Your task to perform on an android device: turn off sleep mode Image 0: 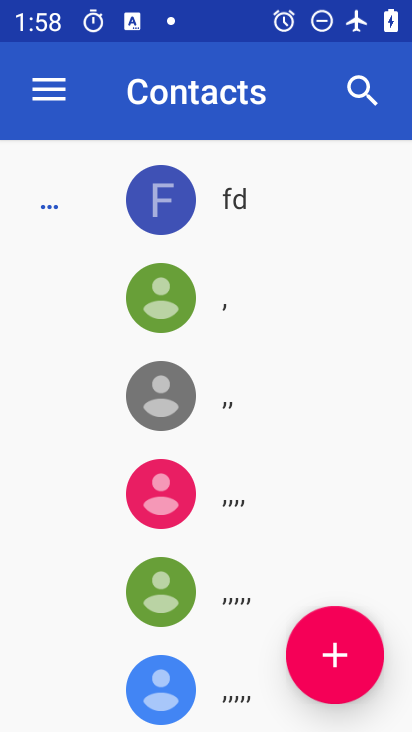
Step 0: press home button
Your task to perform on an android device: turn off sleep mode Image 1: 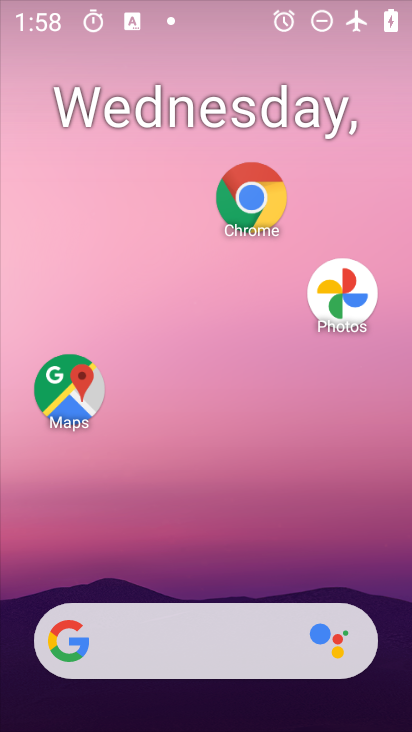
Step 1: drag from (212, 631) to (272, 135)
Your task to perform on an android device: turn off sleep mode Image 2: 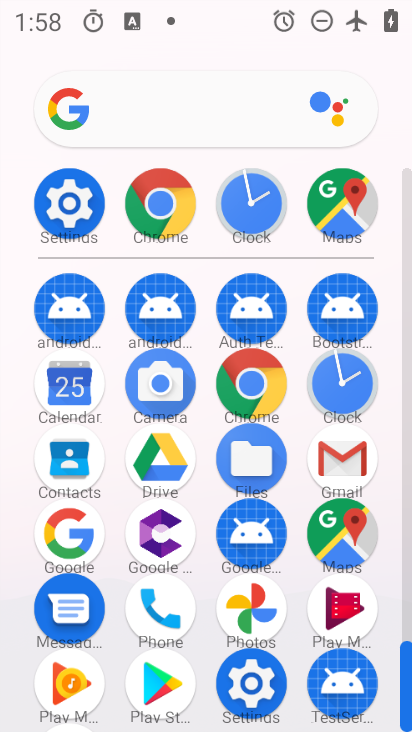
Step 2: click (73, 222)
Your task to perform on an android device: turn off sleep mode Image 3: 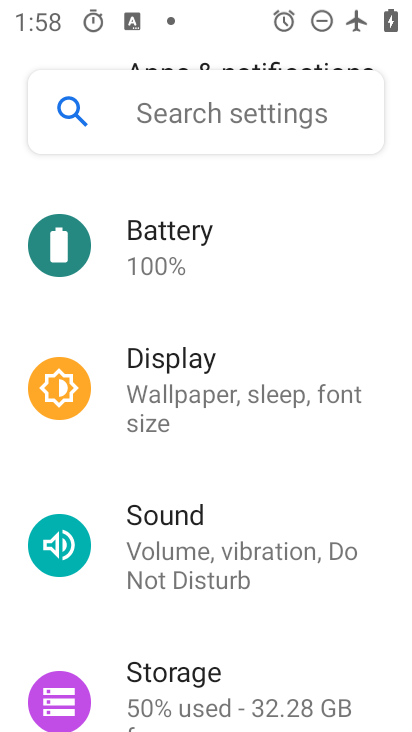
Step 3: drag from (210, 594) to (282, 280)
Your task to perform on an android device: turn off sleep mode Image 4: 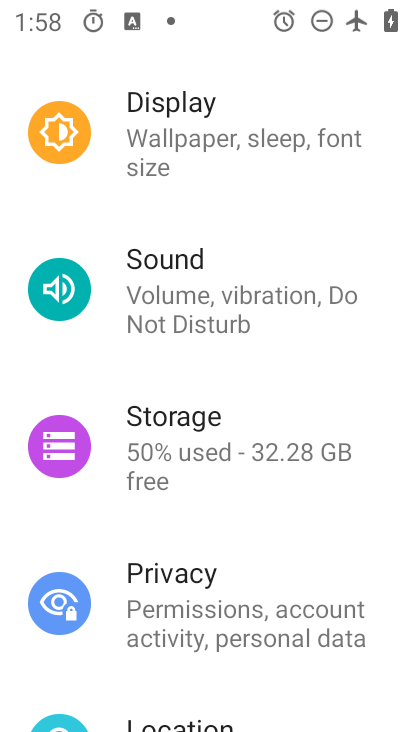
Step 4: drag from (226, 547) to (297, 187)
Your task to perform on an android device: turn off sleep mode Image 5: 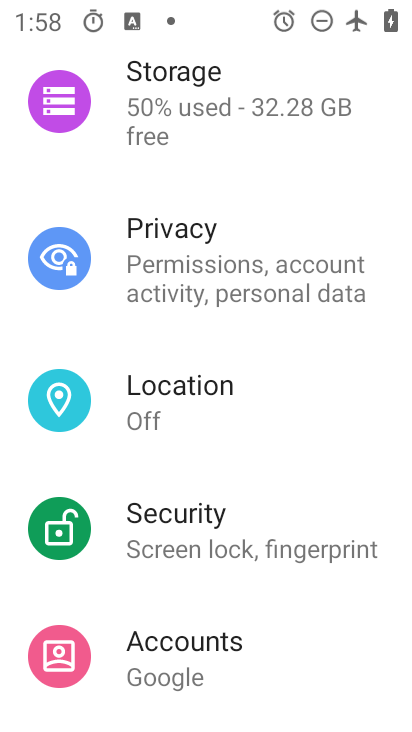
Step 5: drag from (191, 579) to (250, 233)
Your task to perform on an android device: turn off sleep mode Image 6: 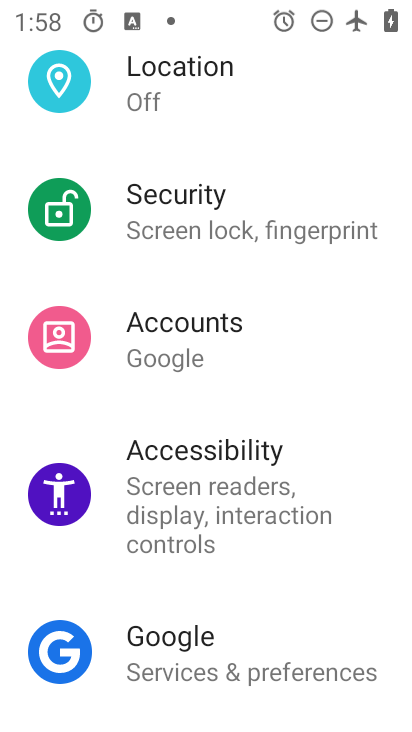
Step 6: drag from (204, 587) to (264, 279)
Your task to perform on an android device: turn off sleep mode Image 7: 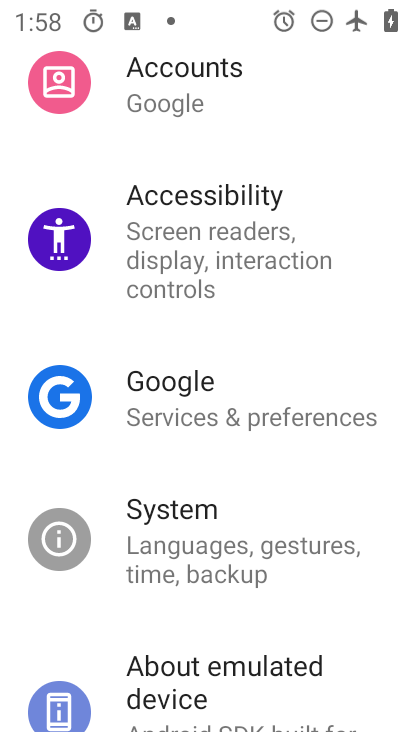
Step 7: drag from (150, 624) to (225, 354)
Your task to perform on an android device: turn off sleep mode Image 8: 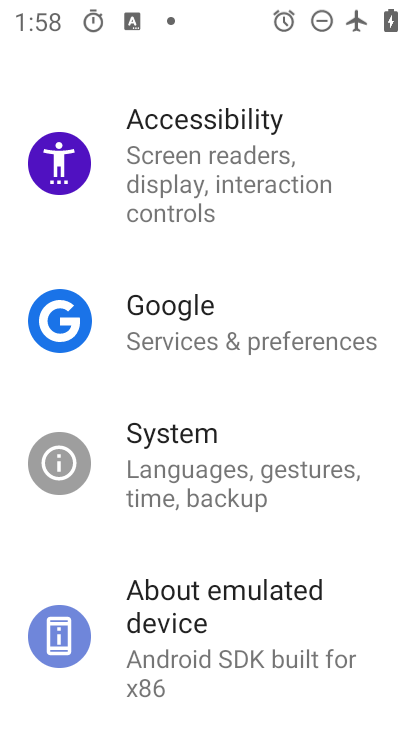
Step 8: drag from (225, 357) to (198, 725)
Your task to perform on an android device: turn off sleep mode Image 9: 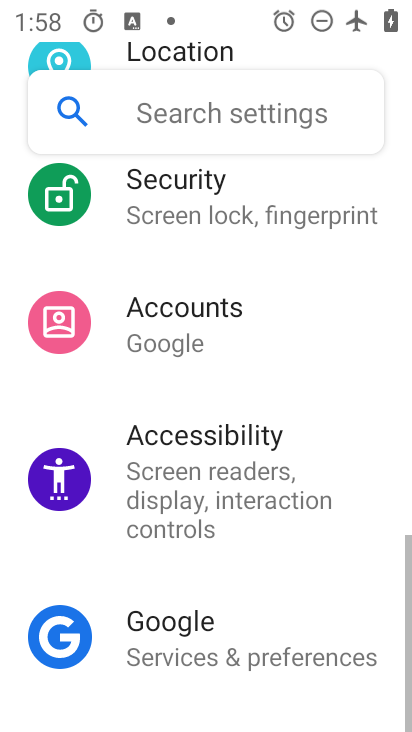
Step 9: drag from (217, 442) to (192, 720)
Your task to perform on an android device: turn off sleep mode Image 10: 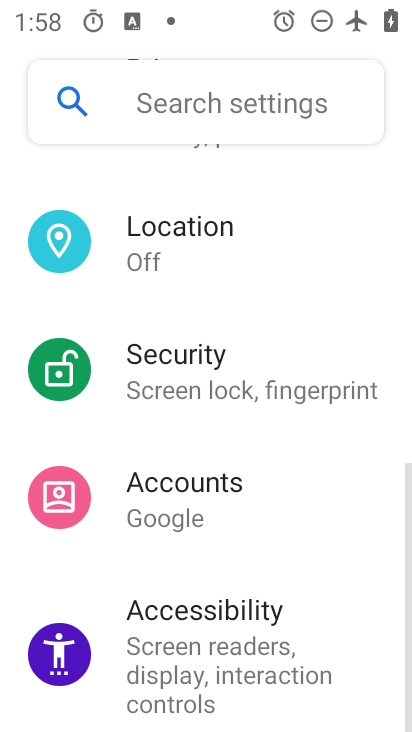
Step 10: drag from (222, 398) to (222, 722)
Your task to perform on an android device: turn off sleep mode Image 11: 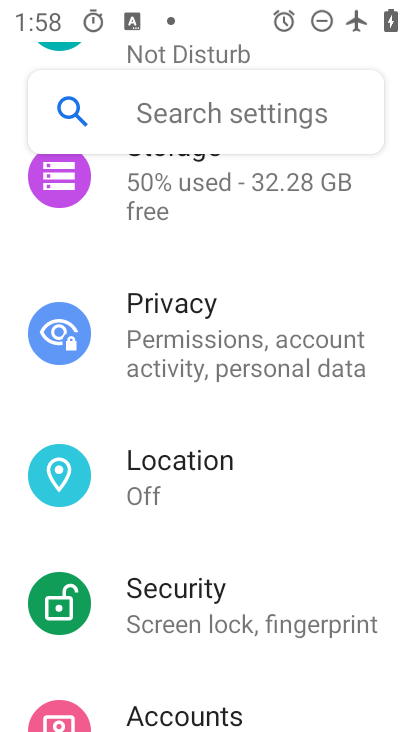
Step 11: drag from (213, 514) to (198, 727)
Your task to perform on an android device: turn off sleep mode Image 12: 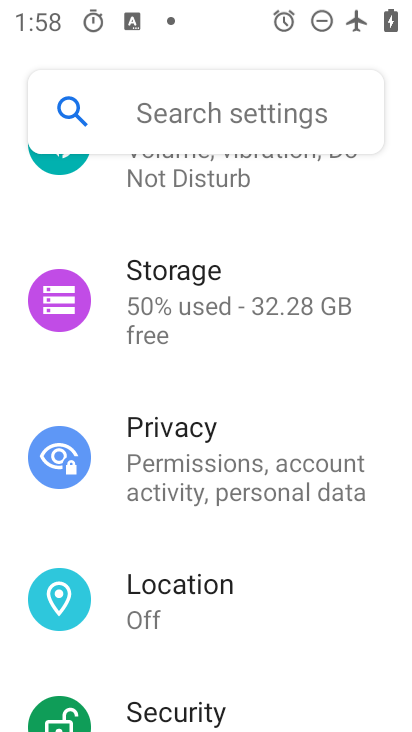
Step 12: drag from (216, 419) to (210, 724)
Your task to perform on an android device: turn off sleep mode Image 13: 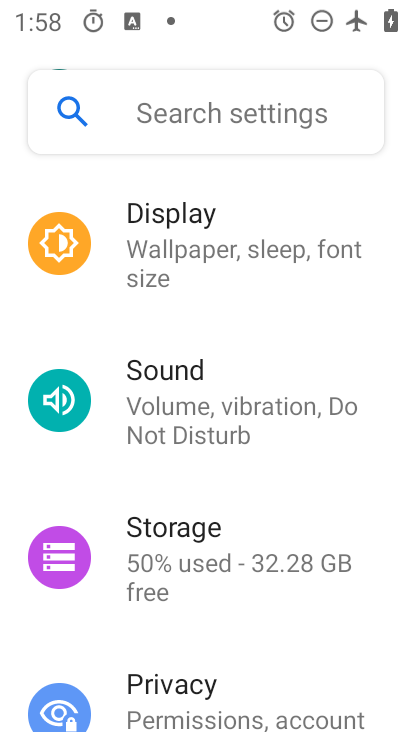
Step 13: click (206, 263)
Your task to perform on an android device: turn off sleep mode Image 14: 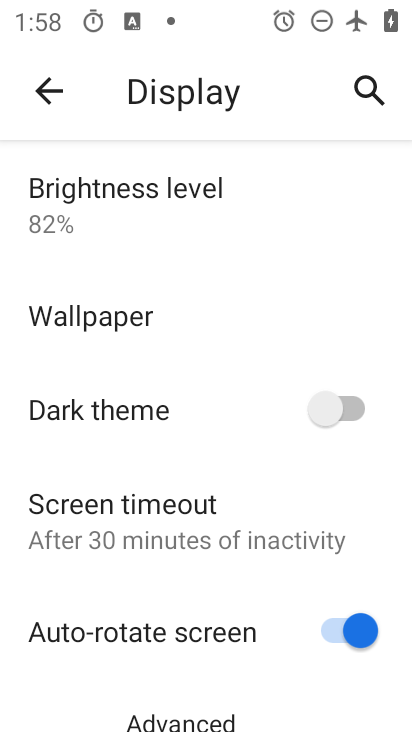
Step 14: drag from (181, 586) to (227, 306)
Your task to perform on an android device: turn off sleep mode Image 15: 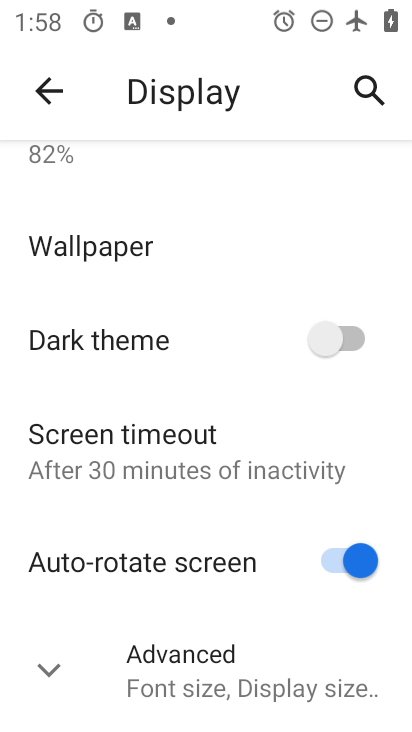
Step 15: click (220, 687)
Your task to perform on an android device: turn off sleep mode Image 16: 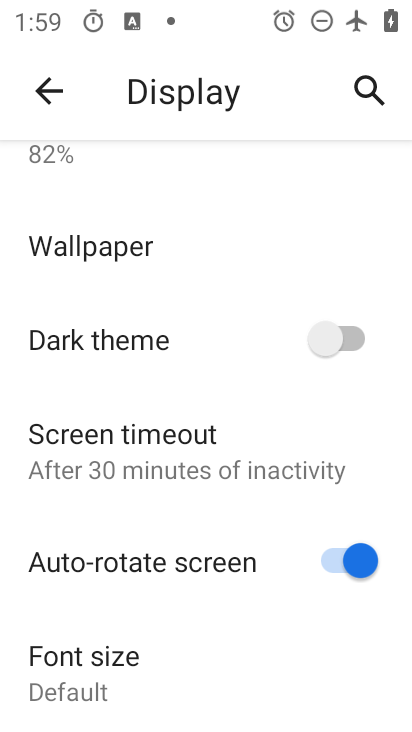
Step 16: task complete